Your task to perform on an android device: install app "Walmart Shopping & Grocery" Image 0: 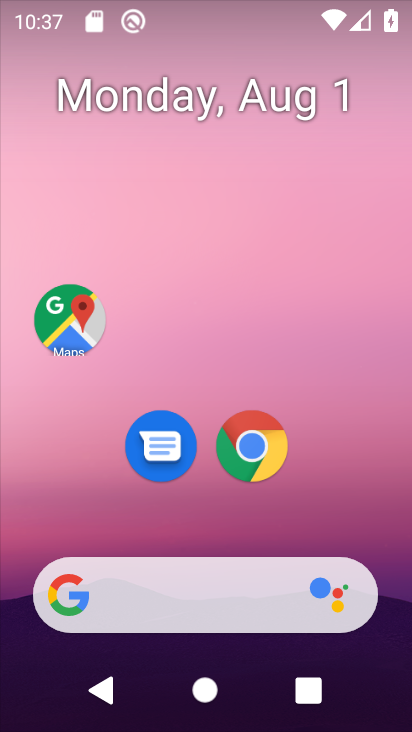
Step 0: drag from (222, 510) to (178, 155)
Your task to perform on an android device: install app "Walmart Shopping & Grocery" Image 1: 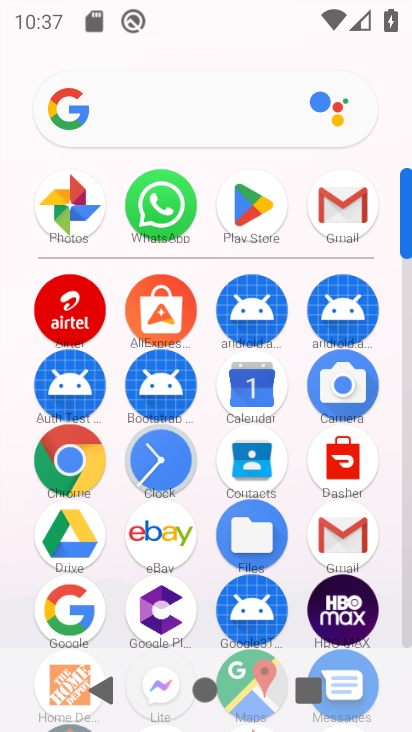
Step 1: click (239, 200)
Your task to perform on an android device: install app "Walmart Shopping & Grocery" Image 2: 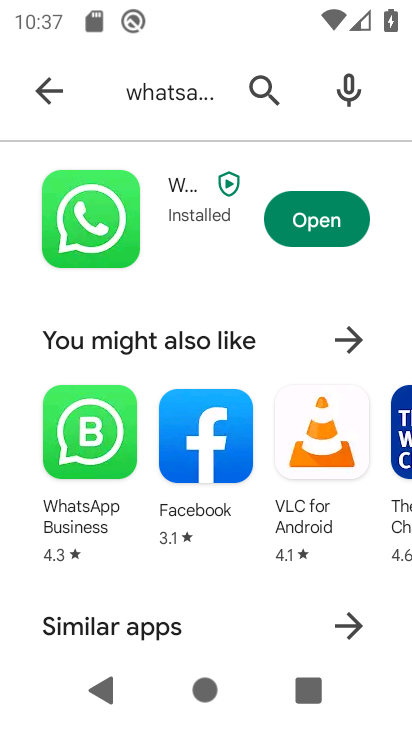
Step 2: click (265, 90)
Your task to perform on an android device: install app "Walmart Shopping & Grocery" Image 3: 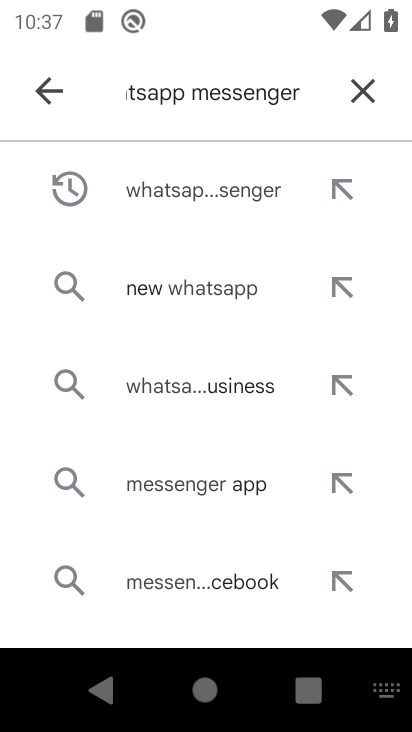
Step 3: click (362, 92)
Your task to perform on an android device: install app "Walmart Shopping & Grocery" Image 4: 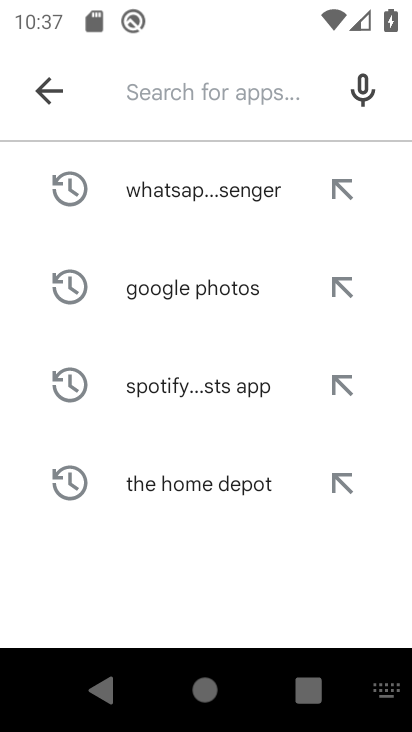
Step 4: type "Walmart Shopping & Grocer"
Your task to perform on an android device: install app "Walmart Shopping & Grocery" Image 5: 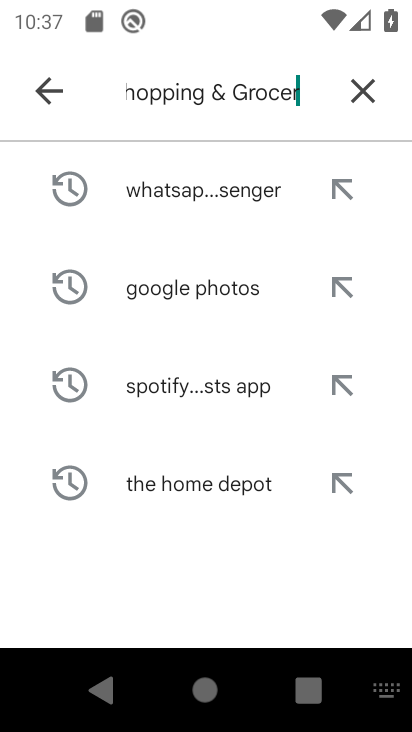
Step 5: type ""
Your task to perform on an android device: install app "Walmart Shopping & Grocery" Image 6: 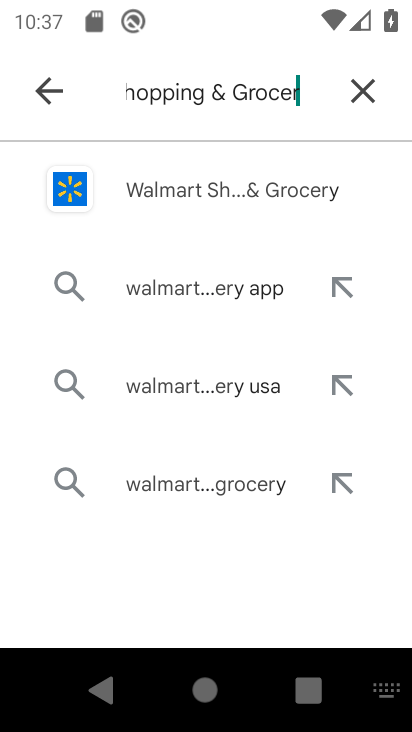
Step 6: click (190, 185)
Your task to perform on an android device: install app "Walmart Shopping & Grocery" Image 7: 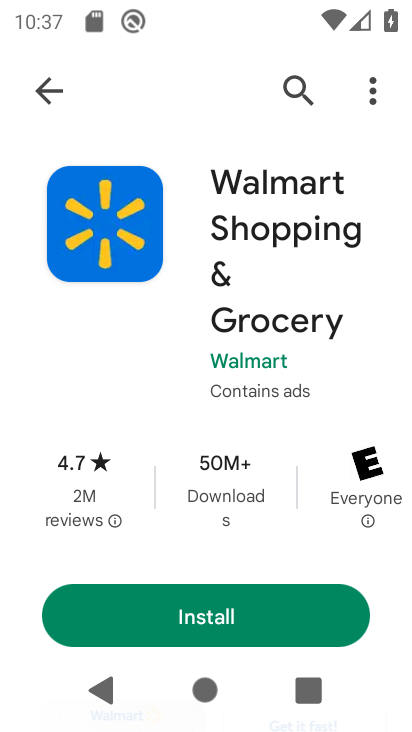
Step 7: click (232, 608)
Your task to perform on an android device: install app "Walmart Shopping & Grocery" Image 8: 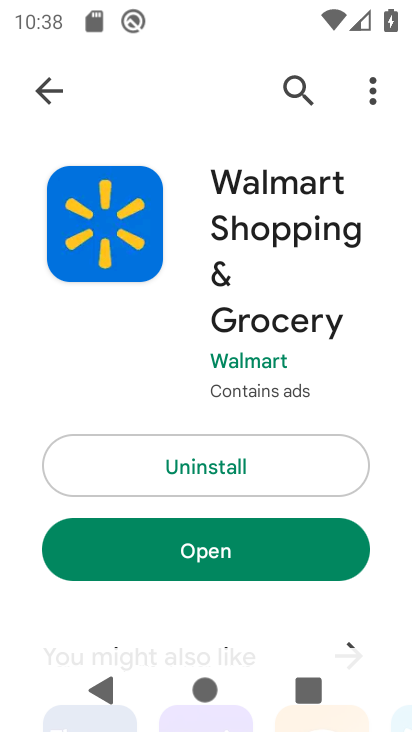
Step 8: task complete